Your task to perform on an android device: Open Google Maps and go to "Timeline" Image 0: 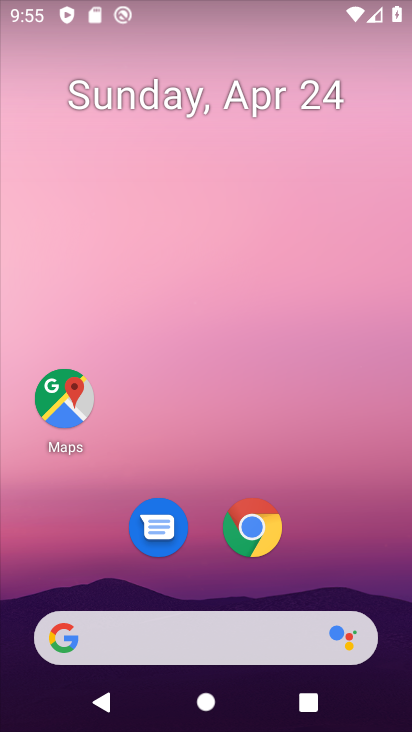
Step 0: click (77, 397)
Your task to perform on an android device: Open Google Maps and go to "Timeline" Image 1: 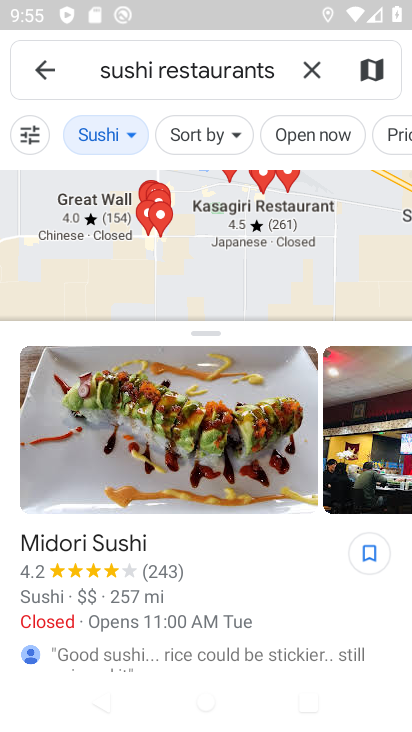
Step 1: click (49, 58)
Your task to perform on an android device: Open Google Maps and go to "Timeline" Image 2: 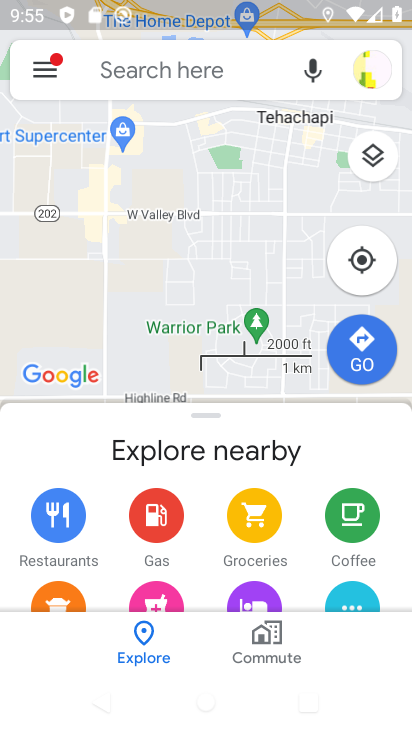
Step 2: click (51, 60)
Your task to perform on an android device: Open Google Maps and go to "Timeline" Image 3: 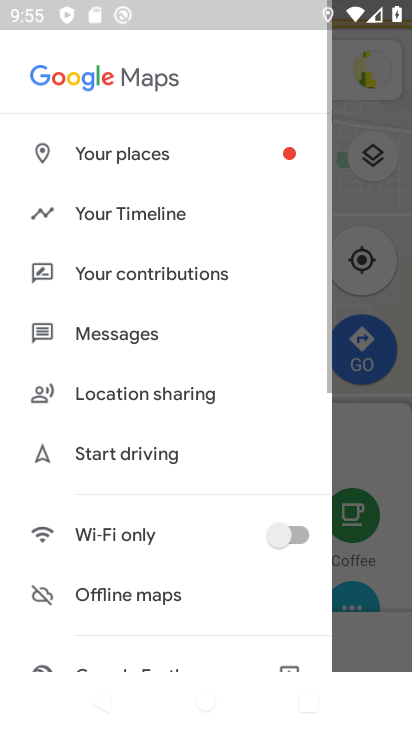
Step 3: click (147, 219)
Your task to perform on an android device: Open Google Maps and go to "Timeline" Image 4: 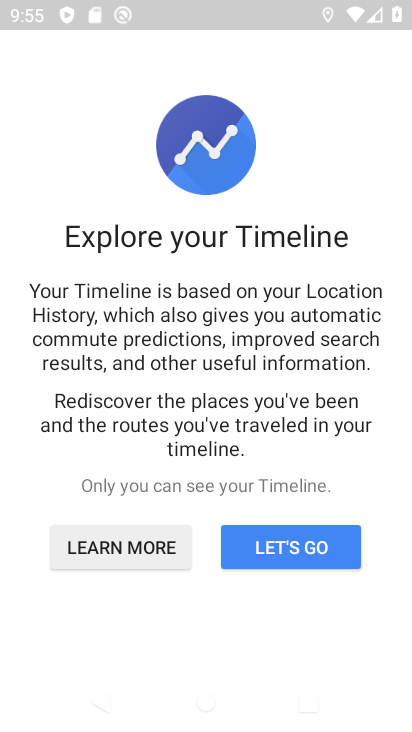
Step 4: click (291, 539)
Your task to perform on an android device: Open Google Maps and go to "Timeline" Image 5: 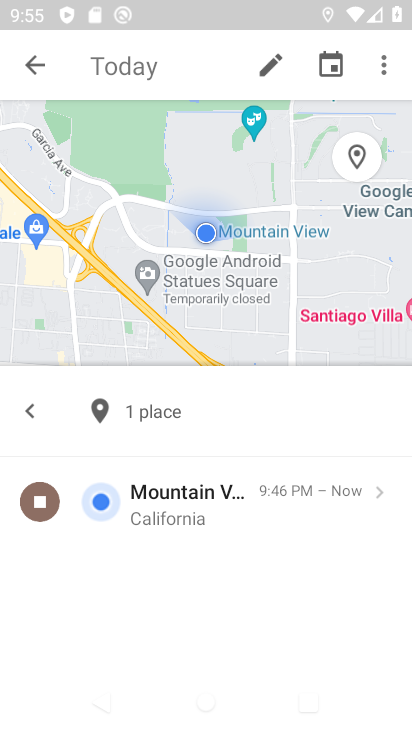
Step 5: task complete